Your task to perform on an android device: Play the last video I watched on Youtube Image 0: 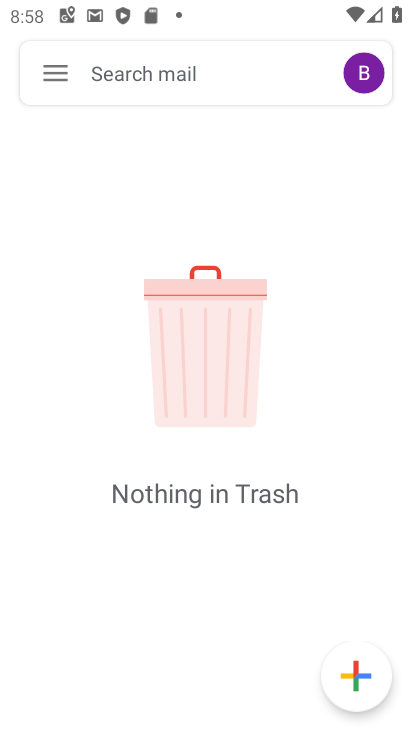
Step 0: press home button
Your task to perform on an android device: Play the last video I watched on Youtube Image 1: 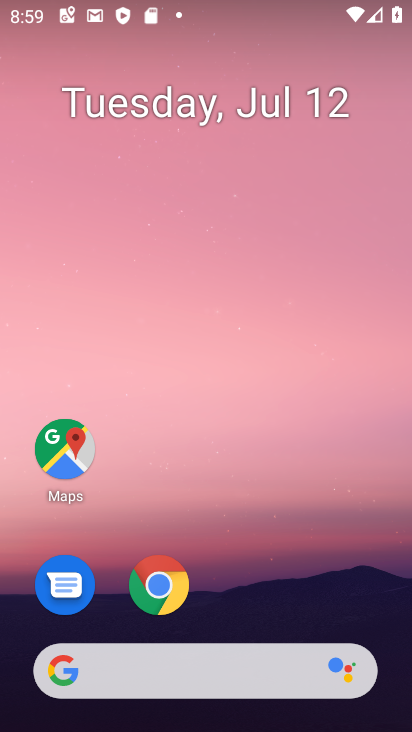
Step 1: drag from (279, 588) to (259, 6)
Your task to perform on an android device: Play the last video I watched on Youtube Image 2: 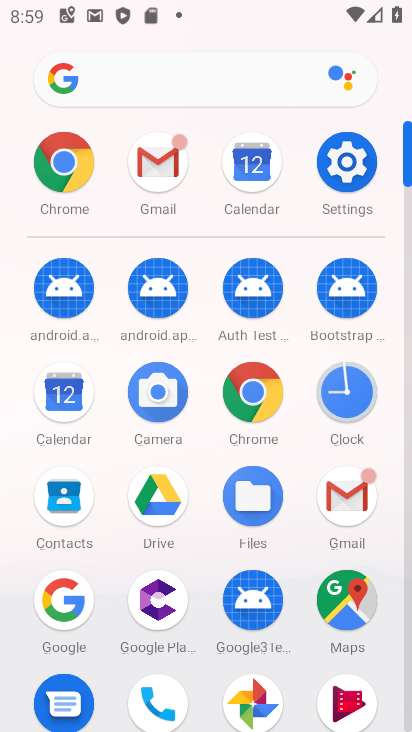
Step 2: drag from (190, 529) to (226, 129)
Your task to perform on an android device: Play the last video I watched on Youtube Image 3: 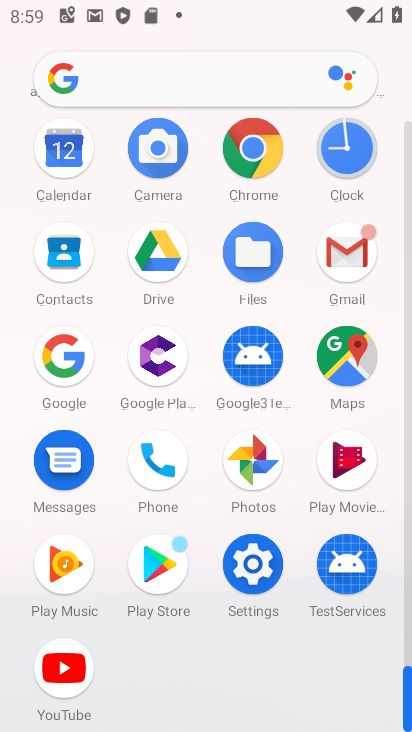
Step 3: click (65, 659)
Your task to perform on an android device: Play the last video I watched on Youtube Image 4: 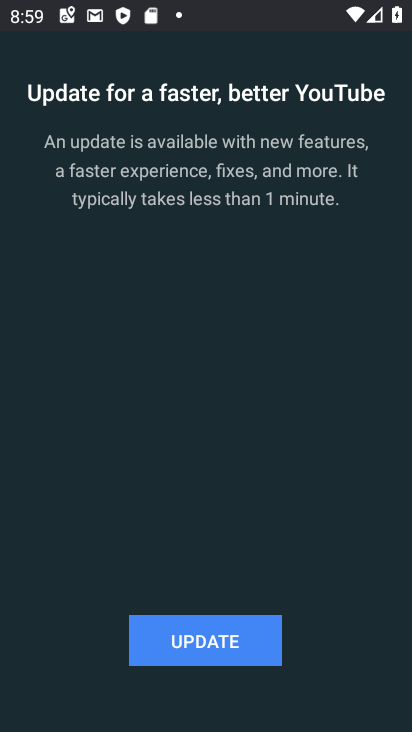
Step 4: click (256, 643)
Your task to perform on an android device: Play the last video I watched on Youtube Image 5: 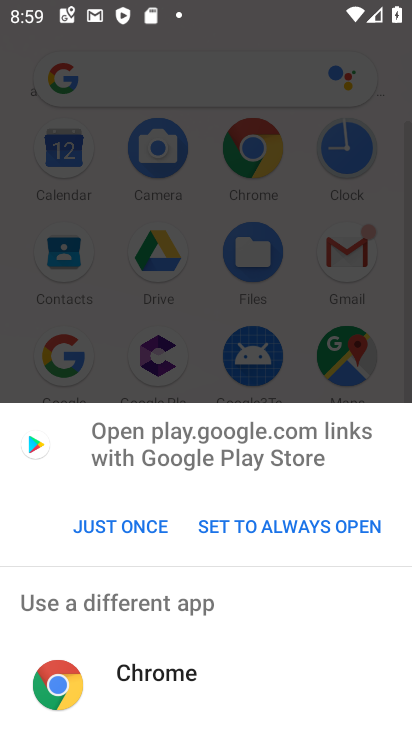
Step 5: click (151, 517)
Your task to perform on an android device: Play the last video I watched on Youtube Image 6: 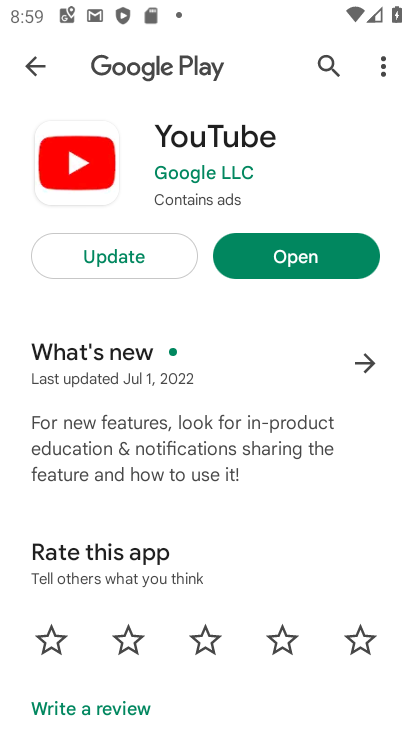
Step 6: click (147, 255)
Your task to perform on an android device: Play the last video I watched on Youtube Image 7: 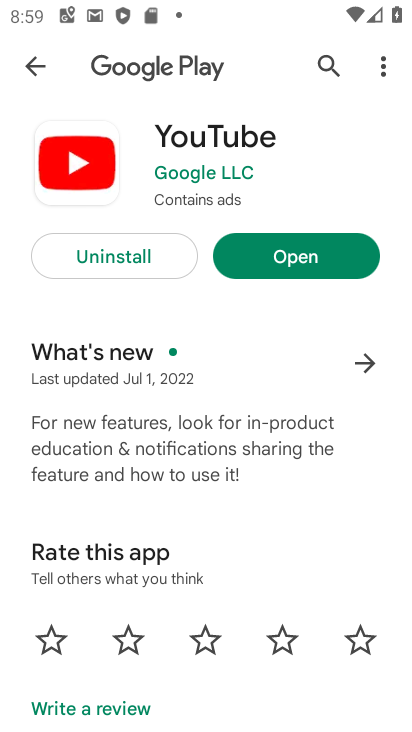
Step 7: click (343, 248)
Your task to perform on an android device: Play the last video I watched on Youtube Image 8: 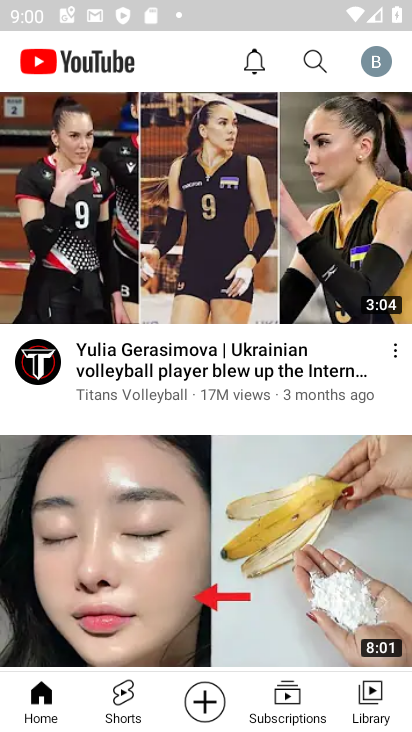
Step 8: click (372, 691)
Your task to perform on an android device: Play the last video I watched on Youtube Image 9: 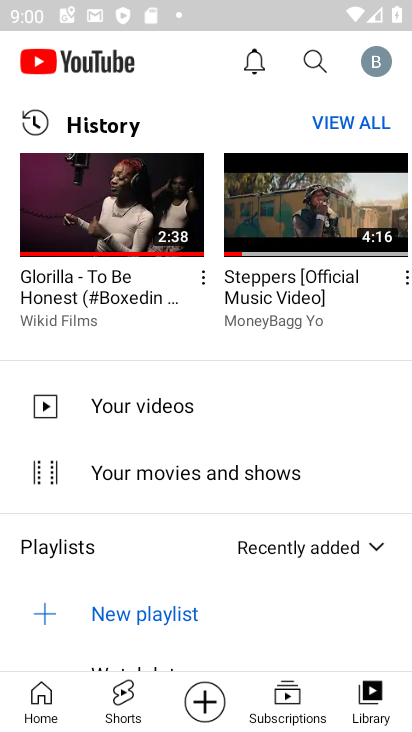
Step 9: click (151, 216)
Your task to perform on an android device: Play the last video I watched on Youtube Image 10: 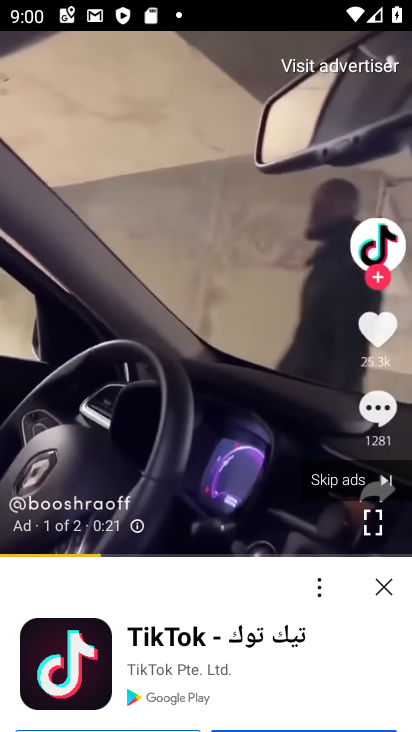
Step 10: click (337, 485)
Your task to perform on an android device: Play the last video I watched on Youtube Image 11: 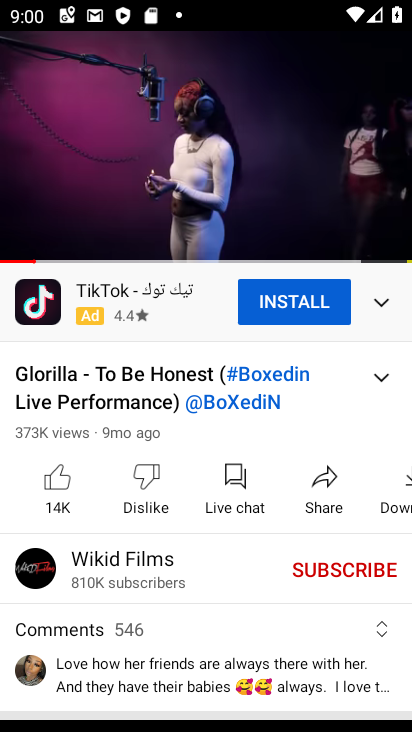
Step 11: task complete